Your task to perform on an android device: Show me popular games on the Play Store Image 0: 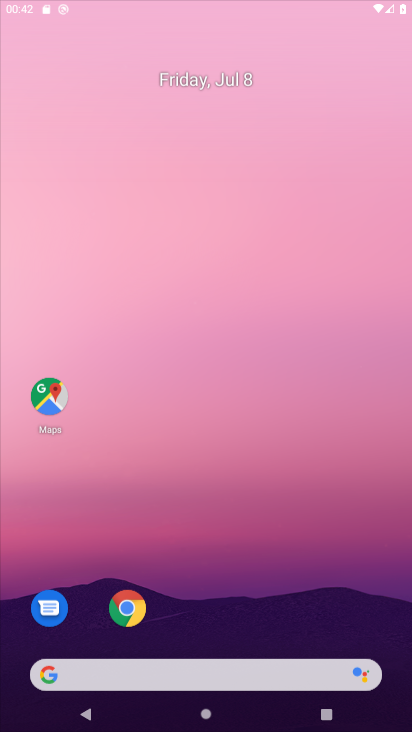
Step 0: click (268, 192)
Your task to perform on an android device: Show me popular games on the Play Store Image 1: 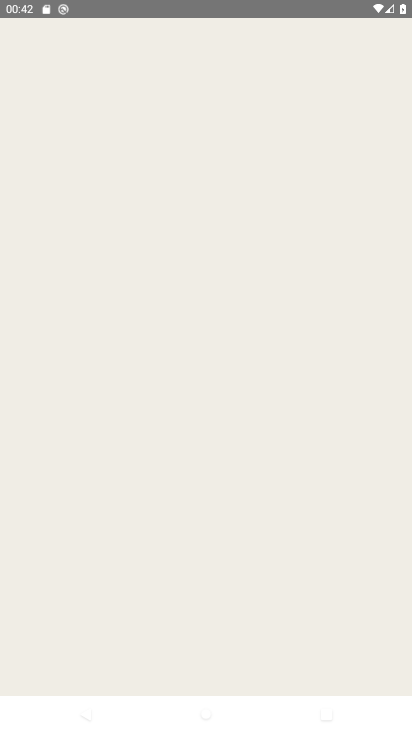
Step 1: press home button
Your task to perform on an android device: Show me popular games on the Play Store Image 2: 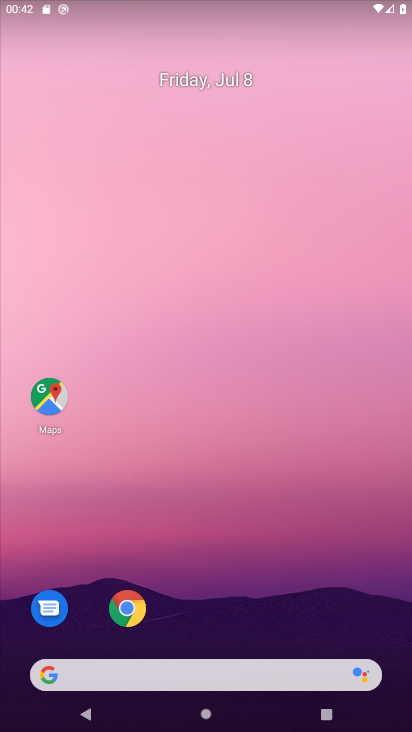
Step 2: drag from (207, 590) to (368, 287)
Your task to perform on an android device: Show me popular games on the Play Store Image 3: 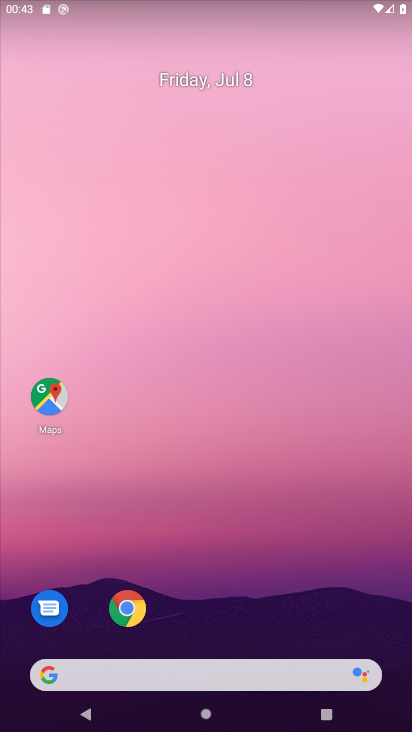
Step 3: drag from (162, 638) to (217, 99)
Your task to perform on an android device: Show me popular games on the Play Store Image 4: 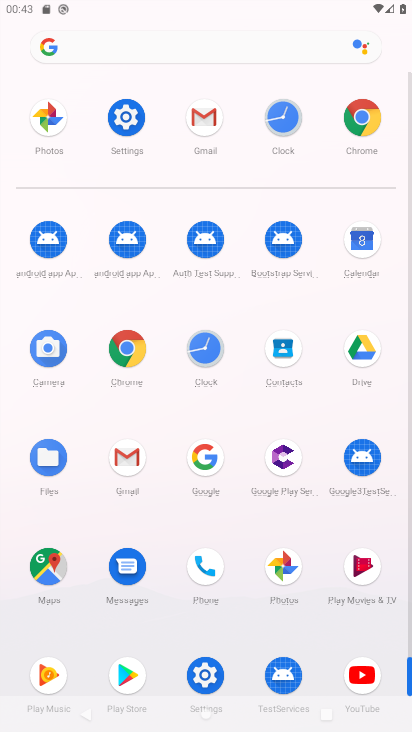
Step 4: click (140, 669)
Your task to perform on an android device: Show me popular games on the Play Store Image 5: 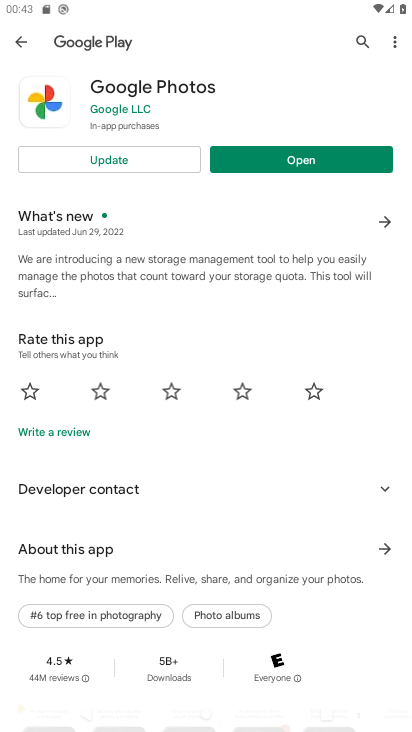
Step 5: click (27, 41)
Your task to perform on an android device: Show me popular games on the Play Store Image 6: 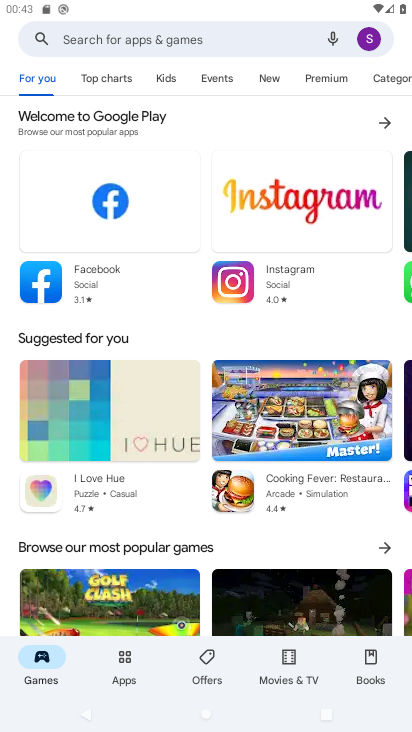
Step 6: task complete